Your task to perform on an android device: Open sound settings Image 0: 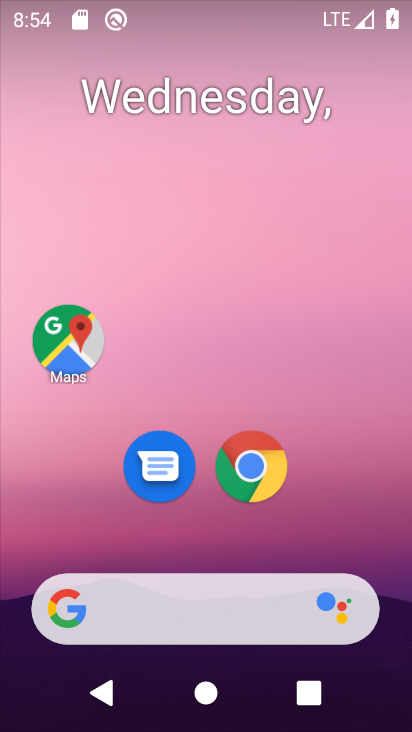
Step 0: drag from (233, 726) to (248, 282)
Your task to perform on an android device: Open sound settings Image 1: 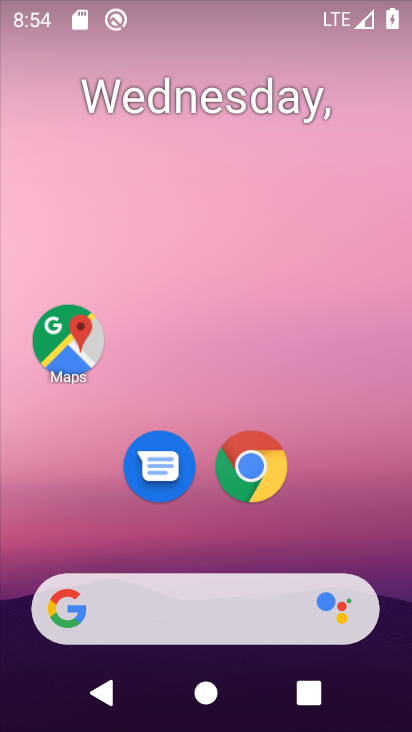
Step 1: drag from (228, 727) to (233, 258)
Your task to perform on an android device: Open sound settings Image 2: 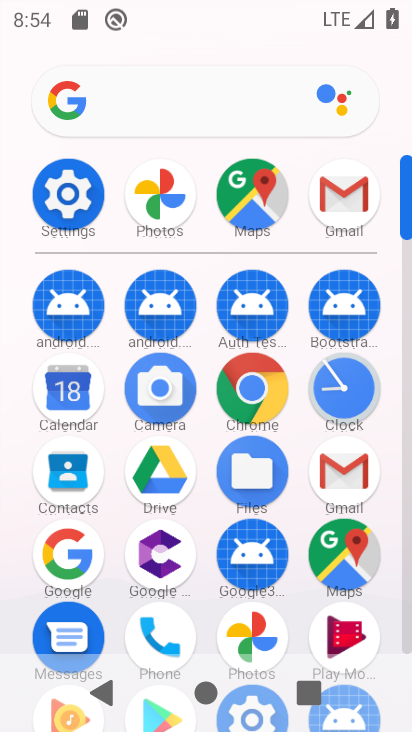
Step 2: click (76, 193)
Your task to perform on an android device: Open sound settings Image 3: 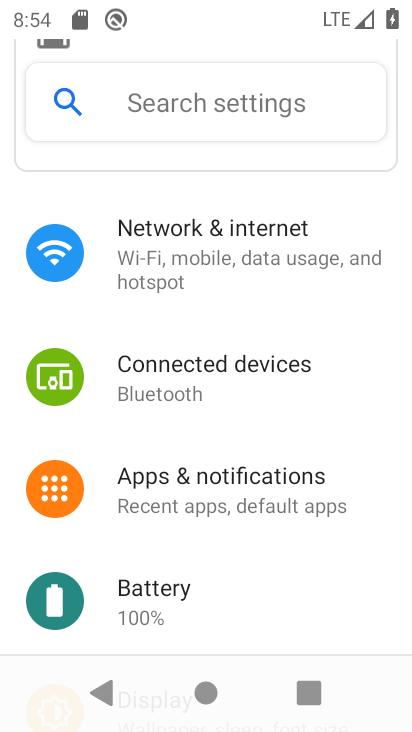
Step 3: drag from (237, 610) to (239, 269)
Your task to perform on an android device: Open sound settings Image 4: 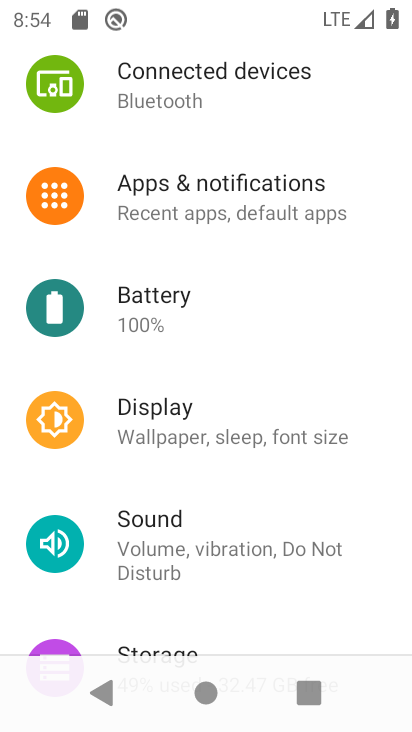
Step 4: click (162, 534)
Your task to perform on an android device: Open sound settings Image 5: 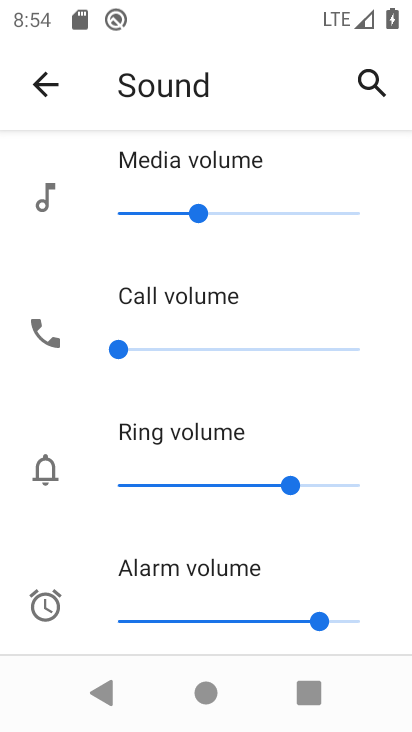
Step 5: task complete